Your task to perform on an android device: What's the weather today? Image 0: 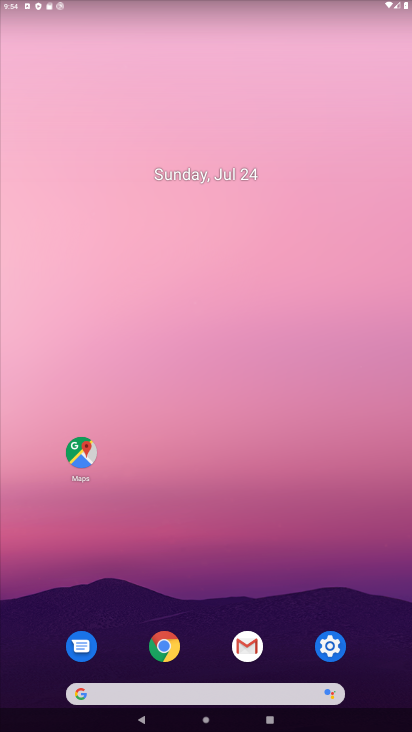
Step 0: click (174, 691)
Your task to perform on an android device: What's the weather today? Image 1: 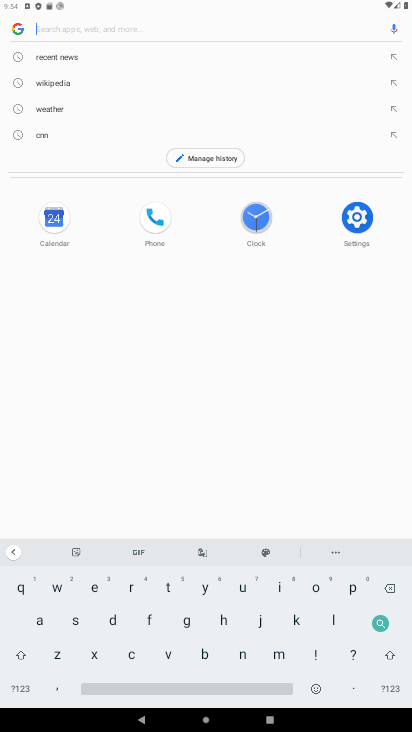
Step 1: click (55, 586)
Your task to perform on an android device: What's the weather today? Image 2: 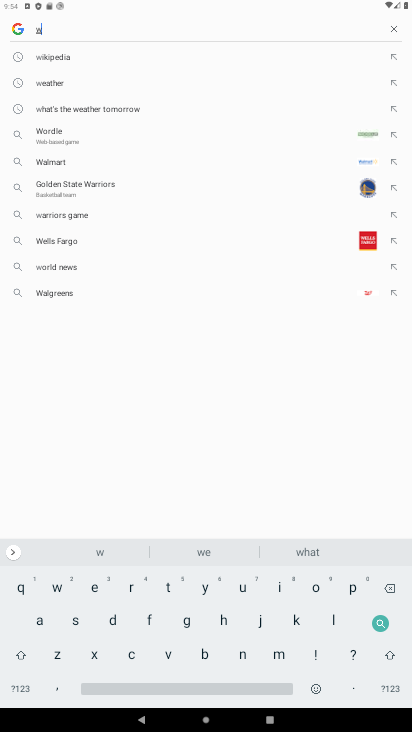
Step 2: click (220, 620)
Your task to perform on an android device: What's the weather today? Image 3: 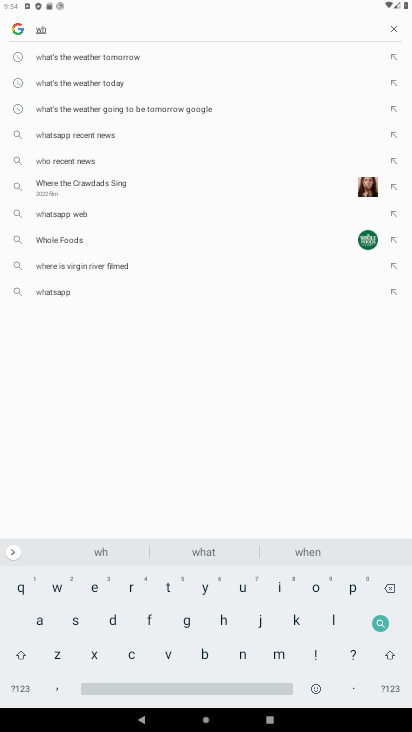
Step 3: click (106, 79)
Your task to perform on an android device: What's the weather today? Image 4: 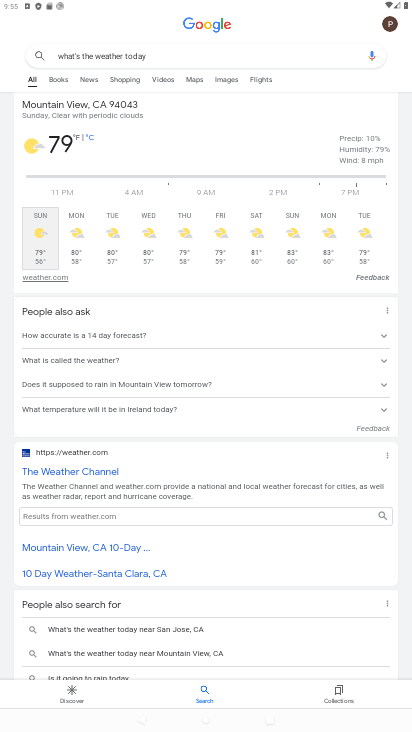
Step 4: task complete